Your task to perform on an android device: turn on showing notifications on the lock screen Image 0: 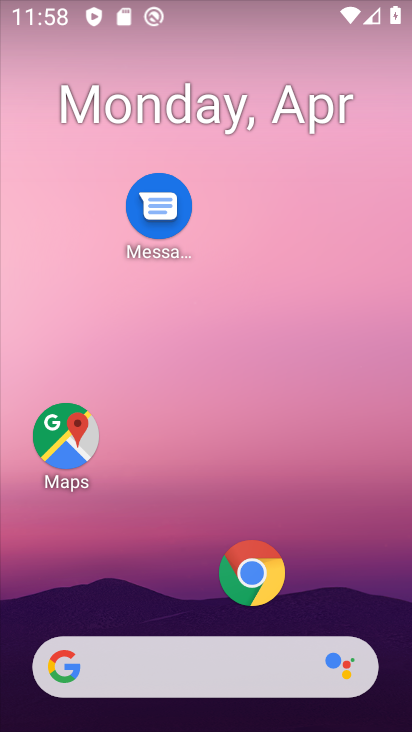
Step 0: drag from (233, 638) to (335, 1)
Your task to perform on an android device: turn on showing notifications on the lock screen Image 1: 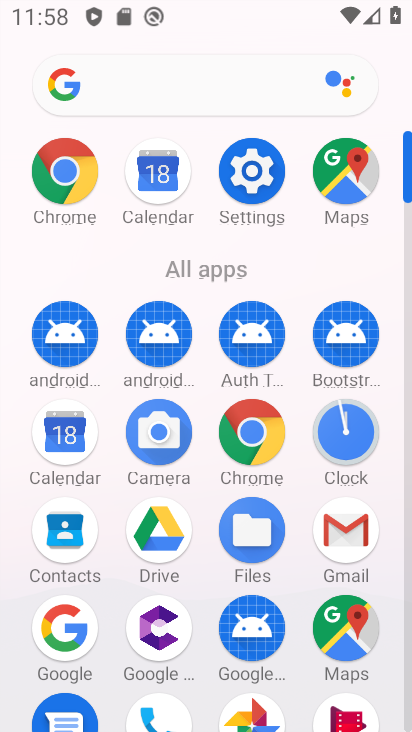
Step 1: click (245, 192)
Your task to perform on an android device: turn on showing notifications on the lock screen Image 2: 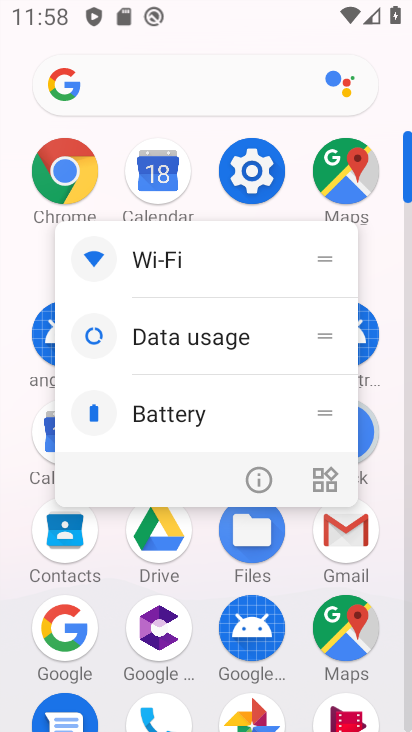
Step 2: click (246, 175)
Your task to perform on an android device: turn on showing notifications on the lock screen Image 3: 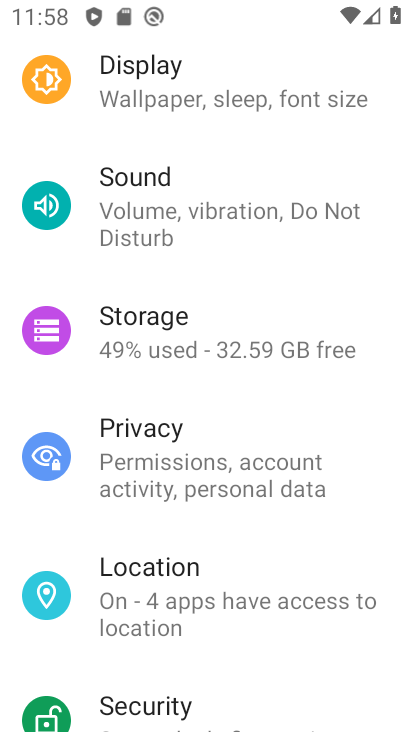
Step 3: drag from (242, 656) to (213, 161)
Your task to perform on an android device: turn on showing notifications on the lock screen Image 4: 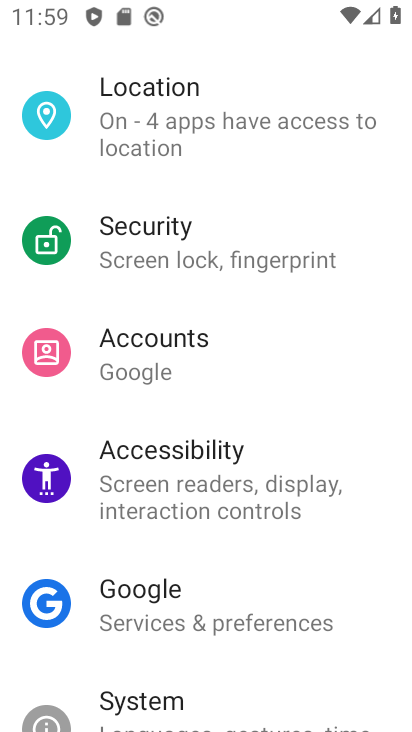
Step 4: drag from (213, 153) to (186, 617)
Your task to perform on an android device: turn on showing notifications on the lock screen Image 5: 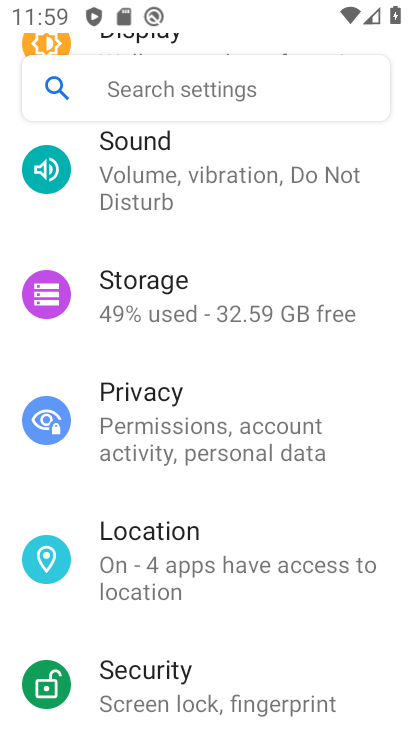
Step 5: drag from (202, 180) to (200, 441)
Your task to perform on an android device: turn on showing notifications on the lock screen Image 6: 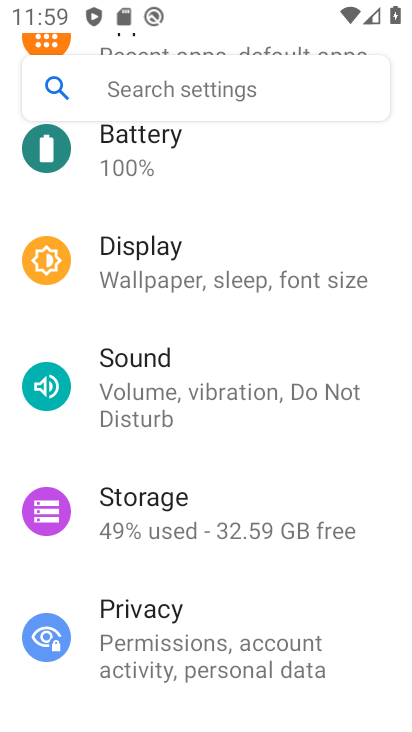
Step 6: drag from (123, 176) to (126, 487)
Your task to perform on an android device: turn on showing notifications on the lock screen Image 7: 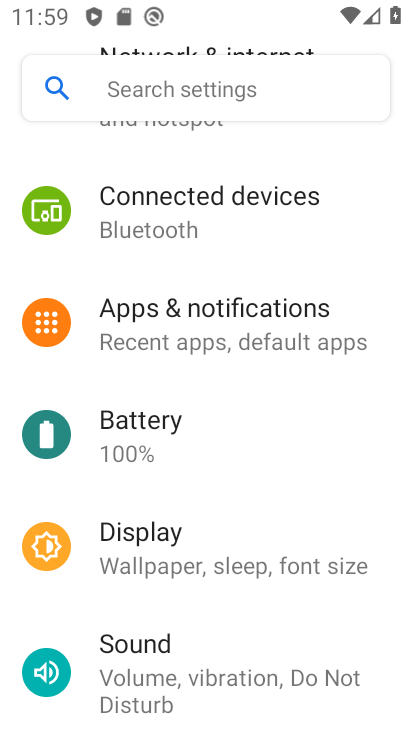
Step 7: click (157, 306)
Your task to perform on an android device: turn on showing notifications on the lock screen Image 8: 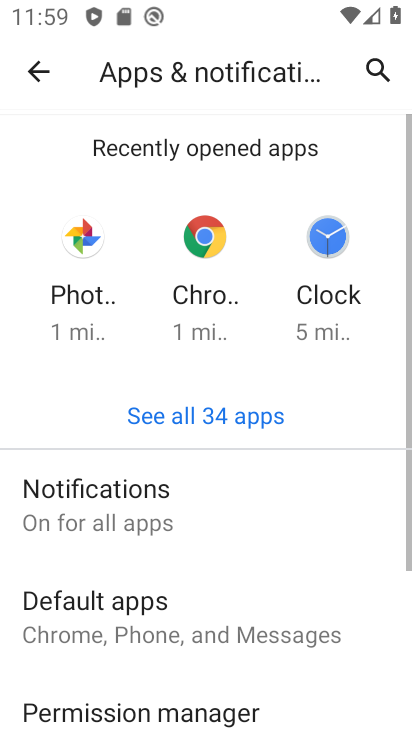
Step 8: click (67, 486)
Your task to perform on an android device: turn on showing notifications on the lock screen Image 9: 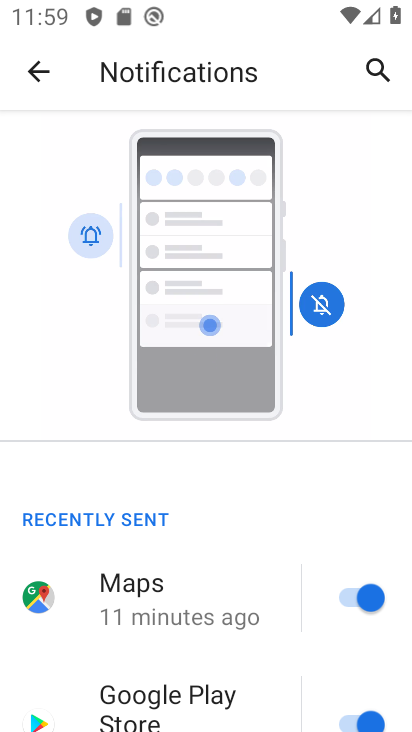
Step 9: drag from (224, 595) to (200, 173)
Your task to perform on an android device: turn on showing notifications on the lock screen Image 10: 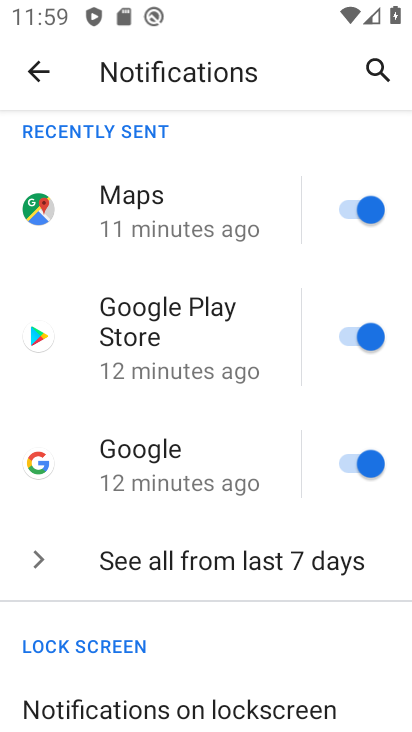
Step 10: click (212, 698)
Your task to perform on an android device: turn on showing notifications on the lock screen Image 11: 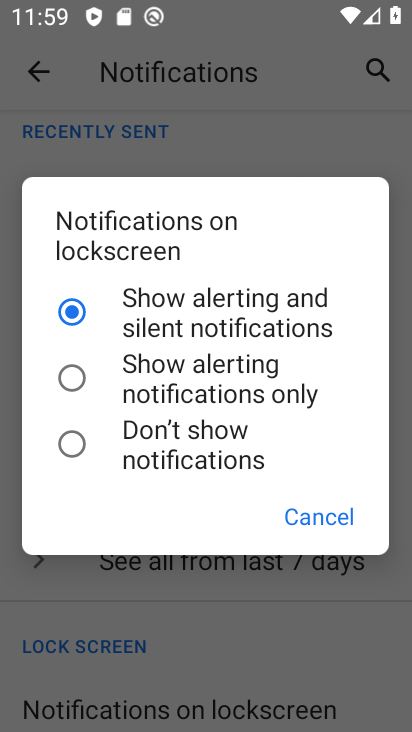
Step 11: click (150, 329)
Your task to perform on an android device: turn on showing notifications on the lock screen Image 12: 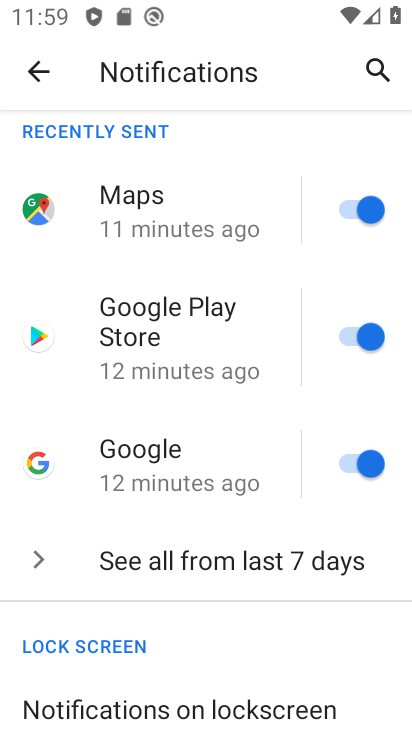
Step 12: task complete